Your task to perform on an android device: open the mobile data screen to see how much data has been used Image 0: 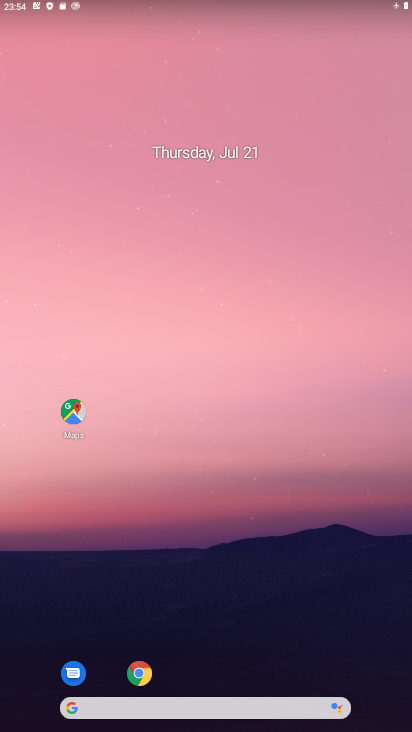
Step 0: drag from (217, 557) to (208, 136)
Your task to perform on an android device: open the mobile data screen to see how much data has been used Image 1: 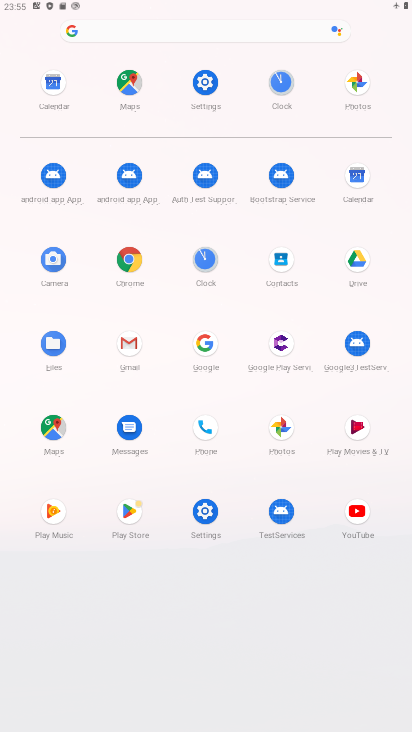
Step 1: click (219, 93)
Your task to perform on an android device: open the mobile data screen to see how much data has been used Image 2: 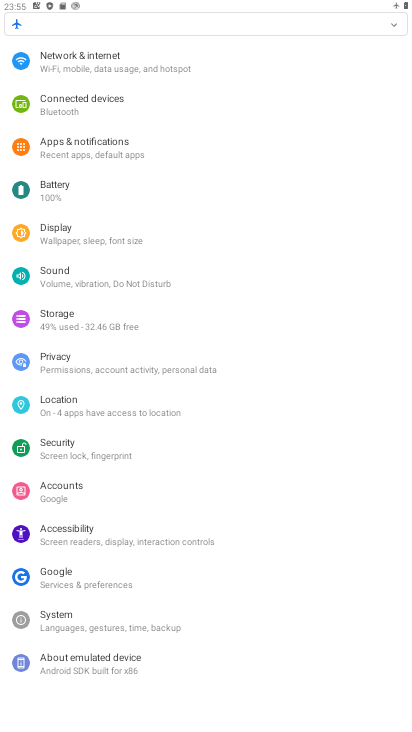
Step 2: click (69, 74)
Your task to perform on an android device: open the mobile data screen to see how much data has been used Image 3: 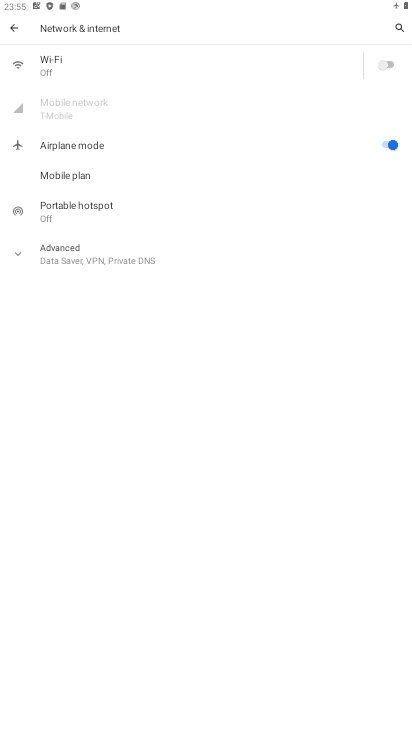
Step 3: click (100, 110)
Your task to perform on an android device: open the mobile data screen to see how much data has been used Image 4: 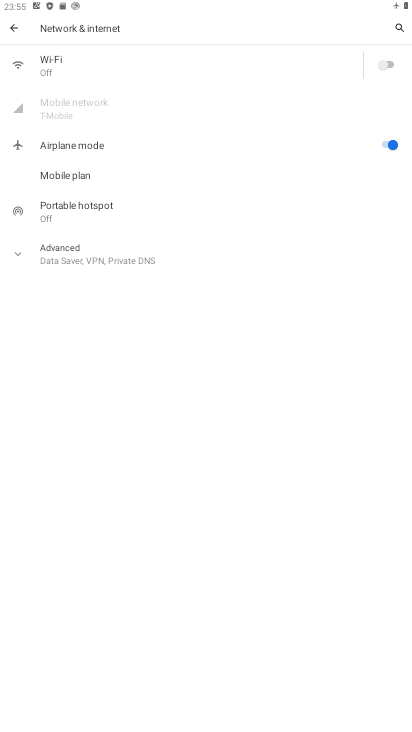
Step 4: task complete